Your task to perform on an android device: Search for seafood restaurants on Google Maps Image 0: 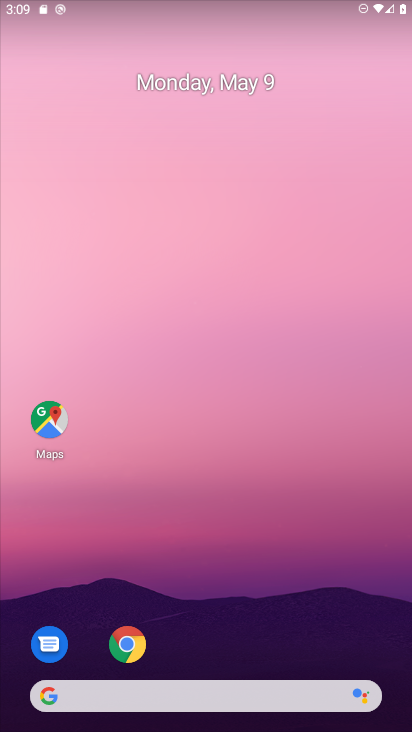
Step 0: click (46, 433)
Your task to perform on an android device: Search for seafood restaurants on Google Maps Image 1: 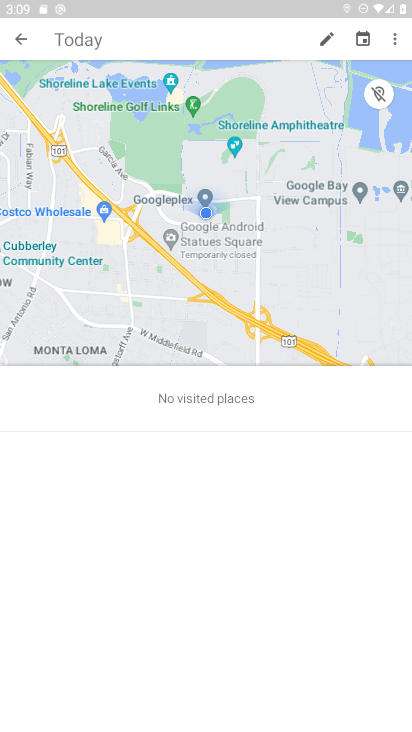
Step 1: click (133, 38)
Your task to perform on an android device: Search for seafood restaurants on Google Maps Image 2: 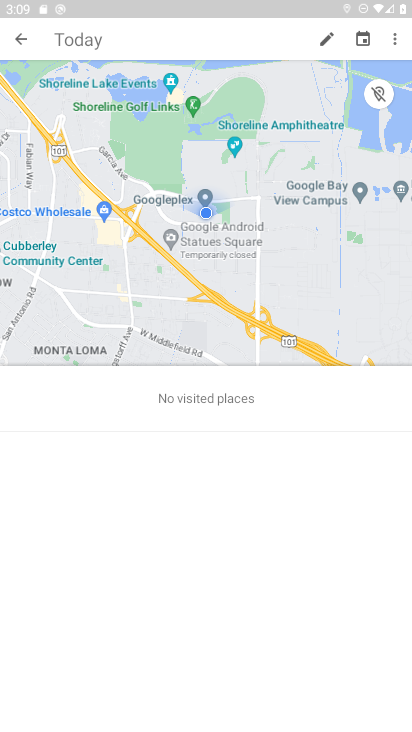
Step 2: click (122, 42)
Your task to perform on an android device: Search for seafood restaurants on Google Maps Image 3: 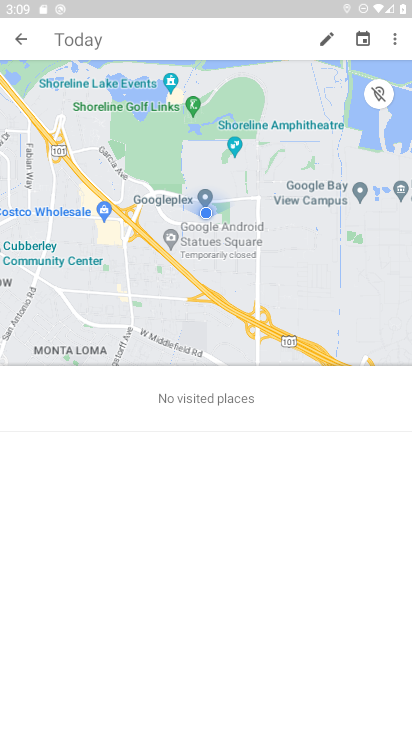
Step 3: click (93, 42)
Your task to perform on an android device: Search for seafood restaurants on Google Maps Image 4: 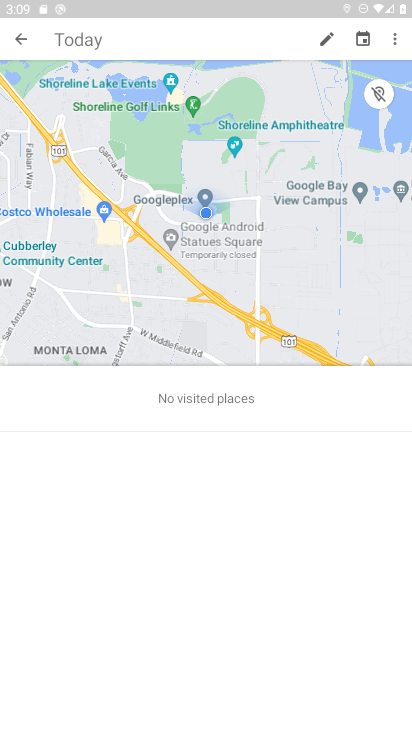
Step 4: click (92, 42)
Your task to perform on an android device: Search for seafood restaurants on Google Maps Image 5: 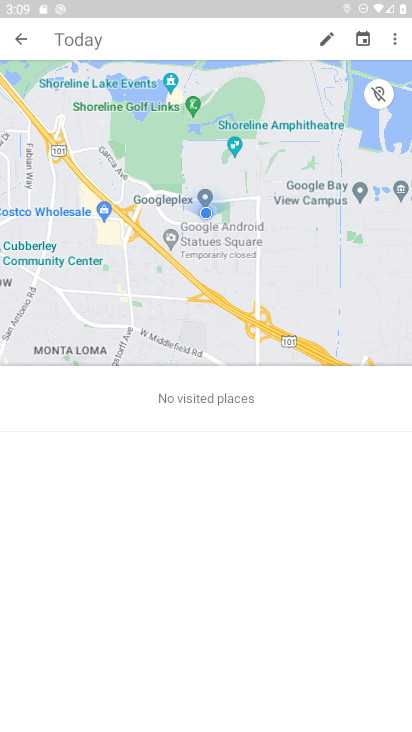
Step 5: press back button
Your task to perform on an android device: Search for seafood restaurants on Google Maps Image 6: 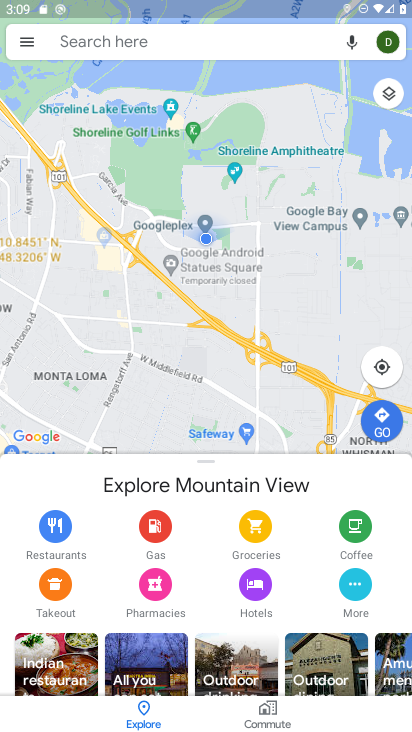
Step 6: click (130, 46)
Your task to perform on an android device: Search for seafood restaurants on Google Maps Image 7: 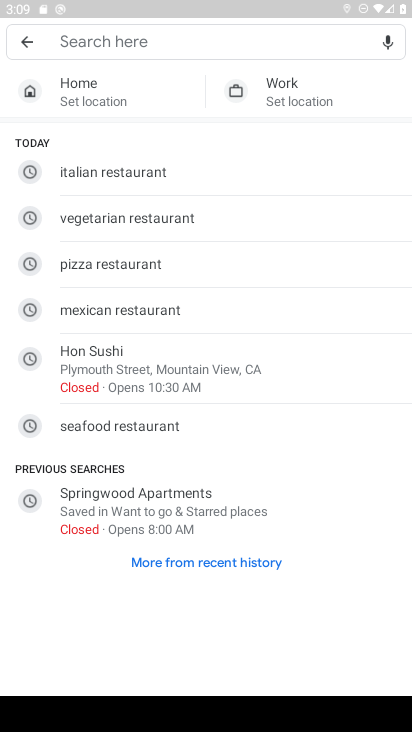
Step 7: type "seafood restaurants"
Your task to perform on an android device: Search for seafood restaurants on Google Maps Image 8: 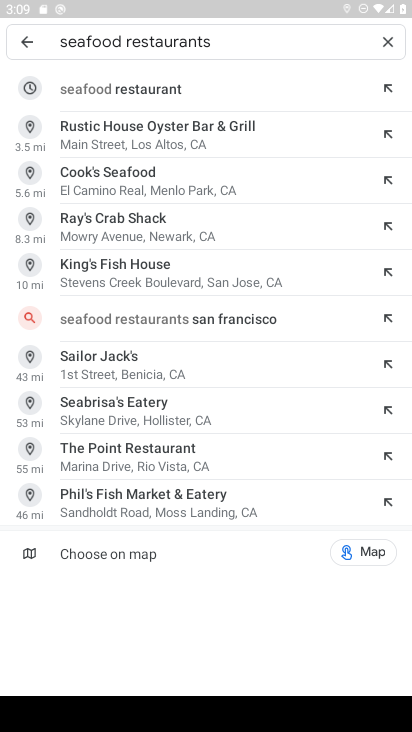
Step 8: click (142, 88)
Your task to perform on an android device: Search for seafood restaurants on Google Maps Image 9: 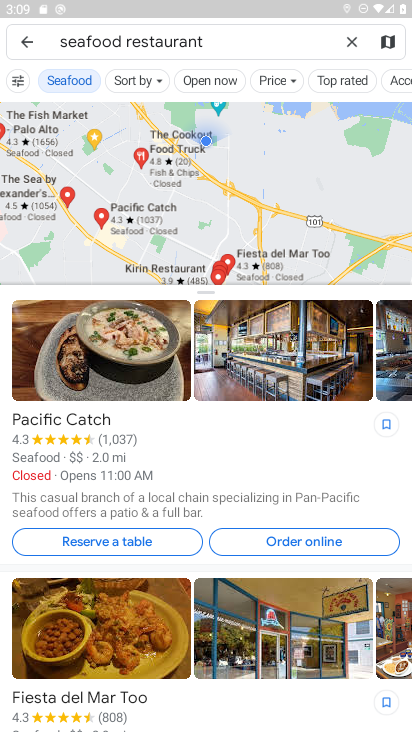
Step 9: task complete